Your task to perform on an android device: What is the news today? Image 0: 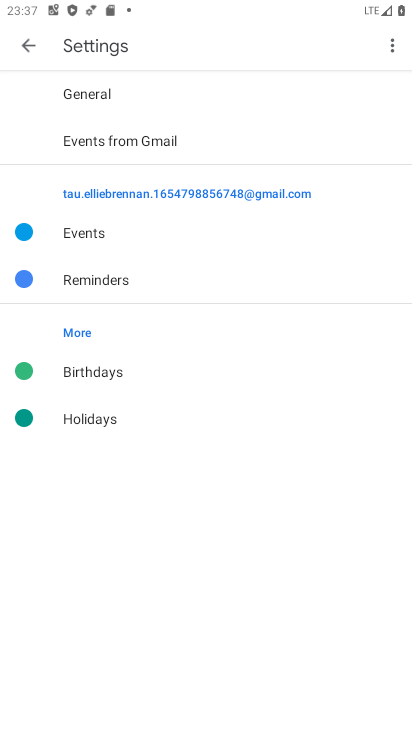
Step 0: press home button
Your task to perform on an android device: What is the news today? Image 1: 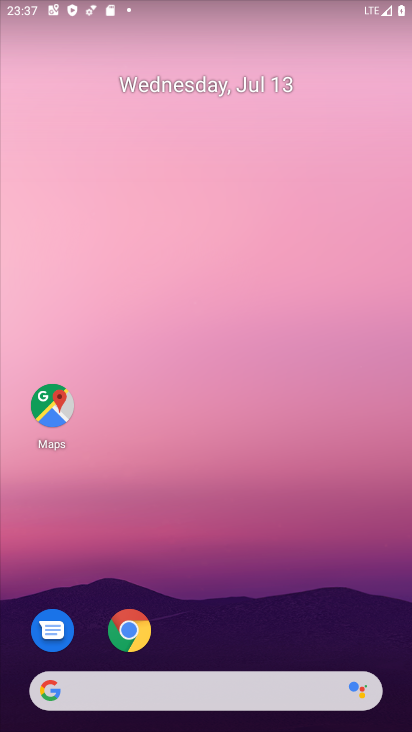
Step 1: task complete